Your task to perform on an android device: set an alarm Image 0: 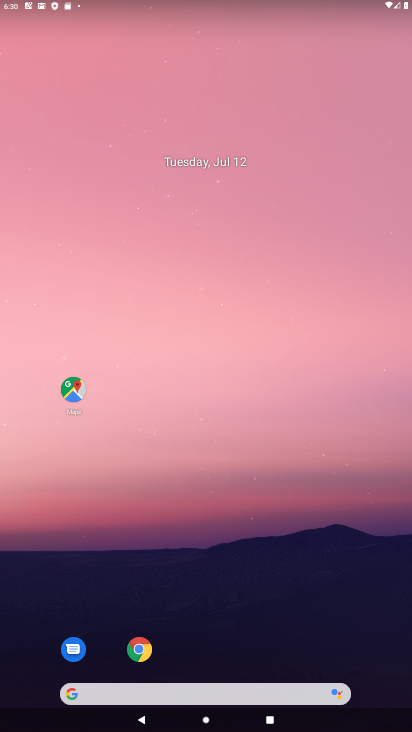
Step 0: drag from (196, 696) to (204, 192)
Your task to perform on an android device: set an alarm Image 1: 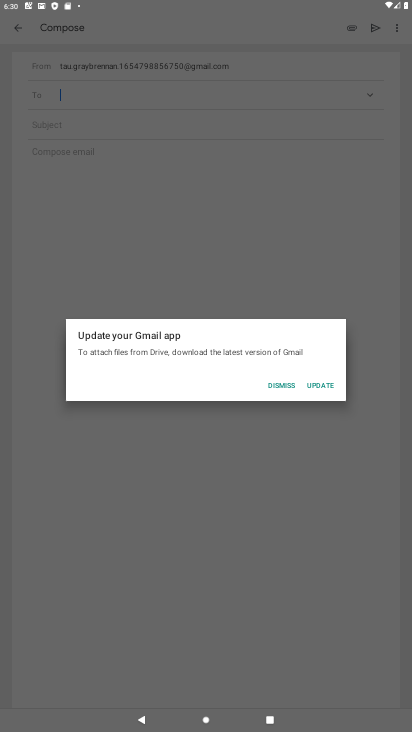
Step 1: press home button
Your task to perform on an android device: set an alarm Image 2: 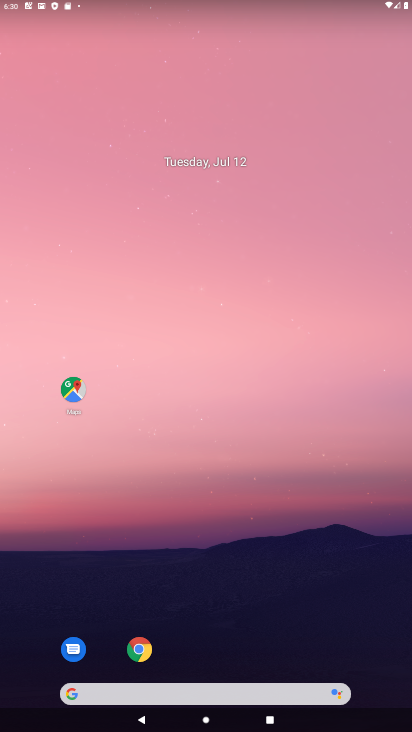
Step 2: drag from (202, 688) to (279, 226)
Your task to perform on an android device: set an alarm Image 3: 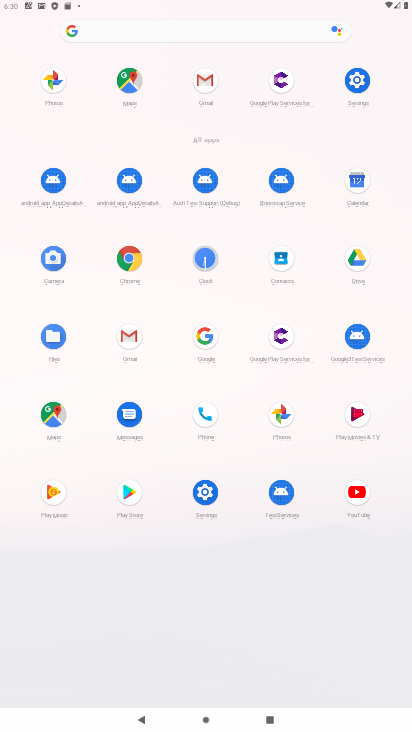
Step 3: click (203, 257)
Your task to perform on an android device: set an alarm Image 4: 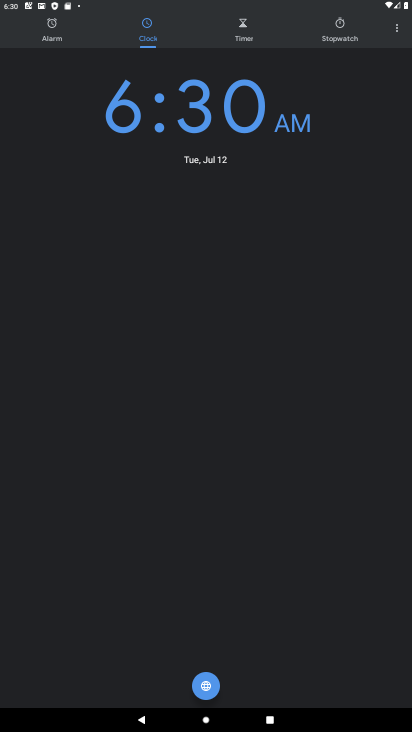
Step 4: click (52, 27)
Your task to perform on an android device: set an alarm Image 5: 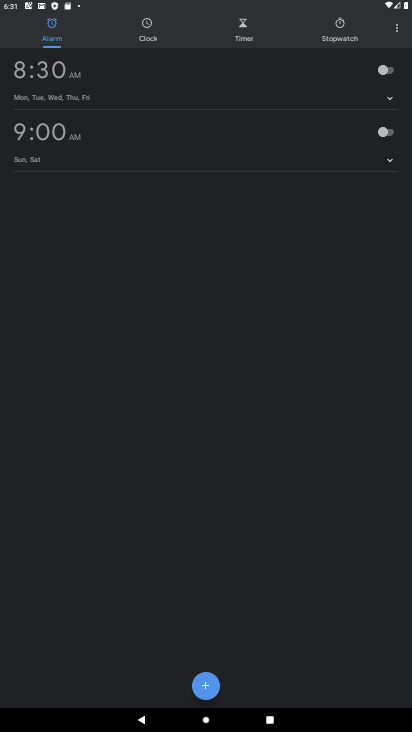
Step 5: click (205, 686)
Your task to perform on an android device: set an alarm Image 6: 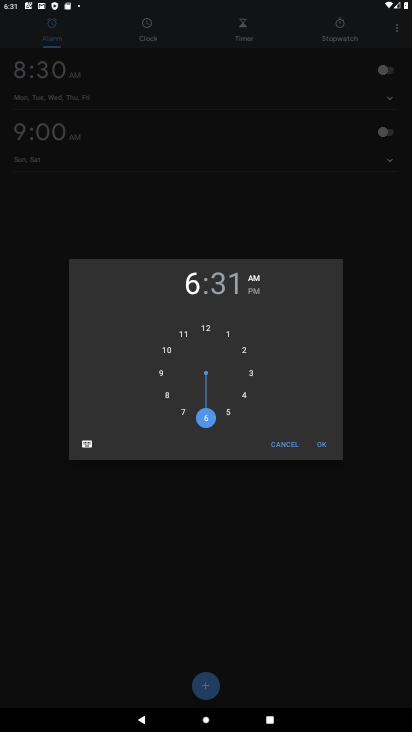
Step 6: click (163, 370)
Your task to perform on an android device: set an alarm Image 7: 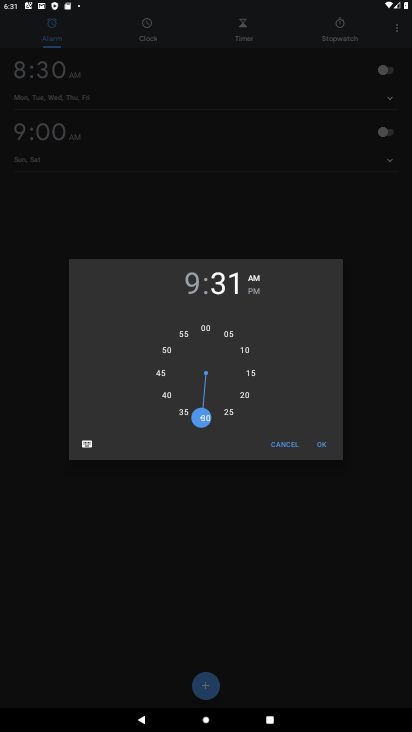
Step 7: click (159, 376)
Your task to perform on an android device: set an alarm Image 8: 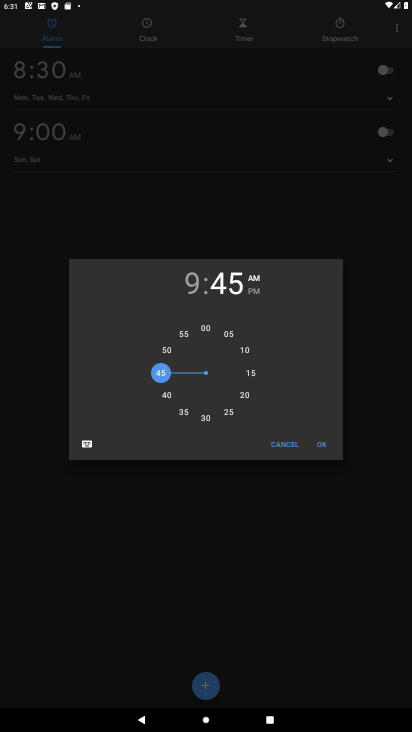
Step 8: click (248, 371)
Your task to perform on an android device: set an alarm Image 9: 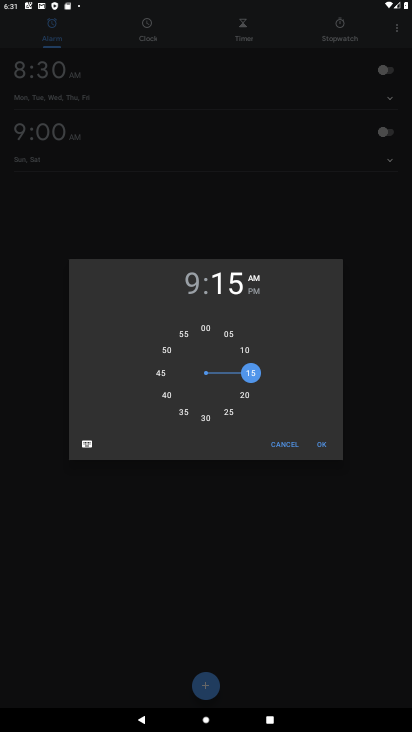
Step 9: click (262, 285)
Your task to perform on an android device: set an alarm Image 10: 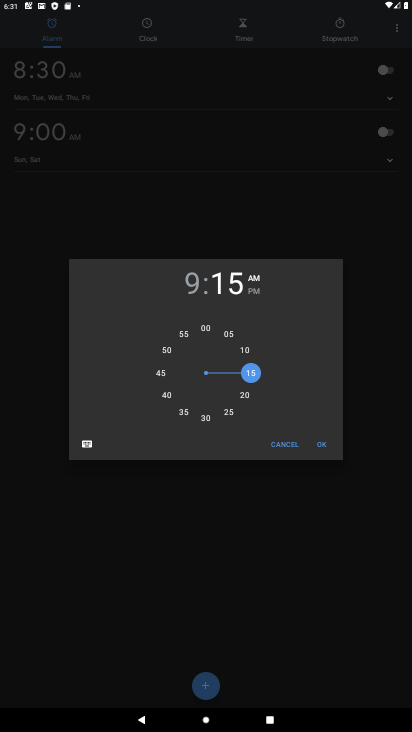
Step 10: click (255, 291)
Your task to perform on an android device: set an alarm Image 11: 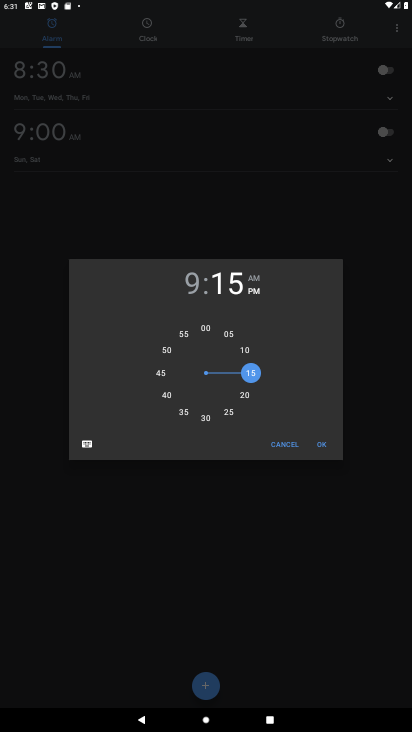
Step 11: click (319, 443)
Your task to perform on an android device: set an alarm Image 12: 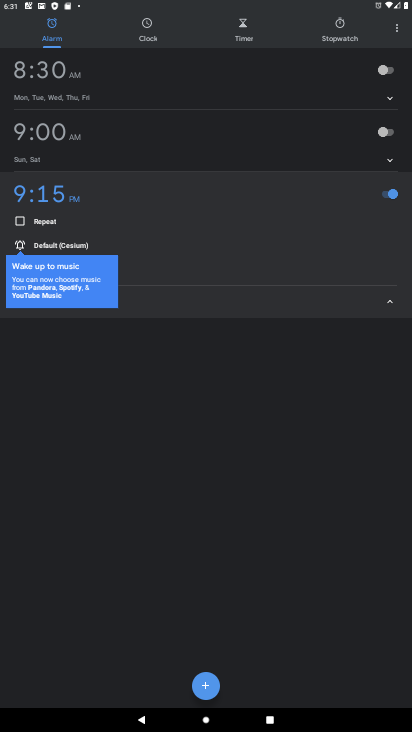
Step 12: task complete